Your task to perform on an android device: Open the calendar and show me this week's events? Image 0: 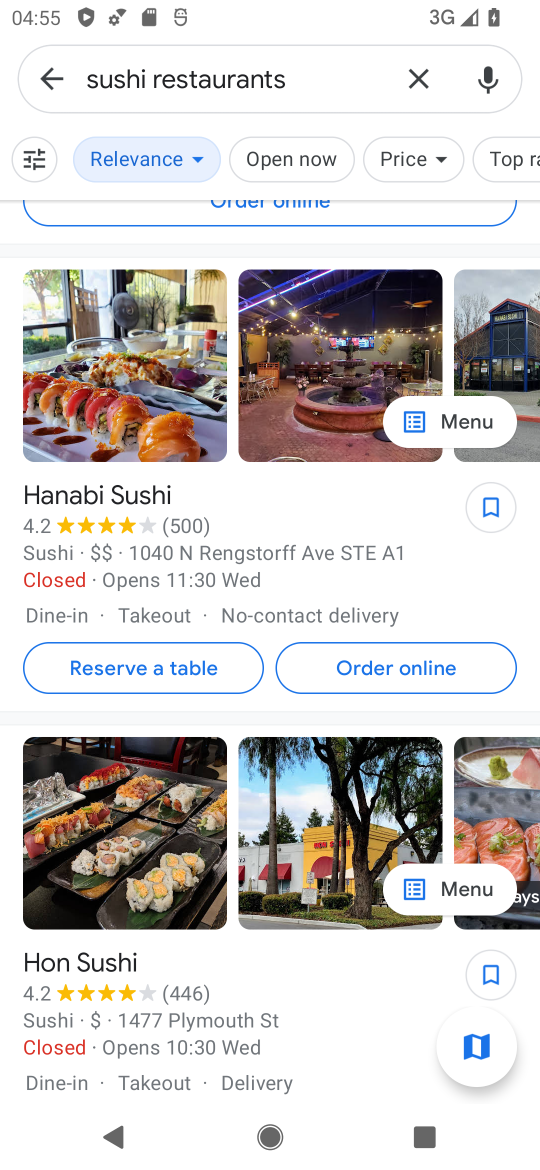
Step 0: press home button
Your task to perform on an android device: Open the calendar and show me this week's events? Image 1: 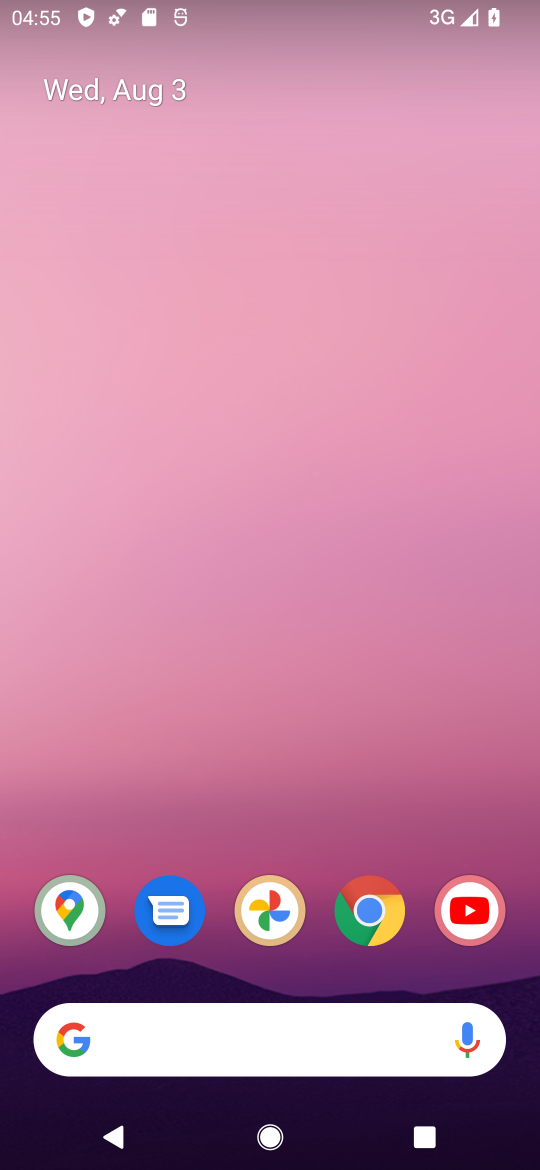
Step 1: drag from (311, 823) to (333, 13)
Your task to perform on an android device: Open the calendar and show me this week's events? Image 2: 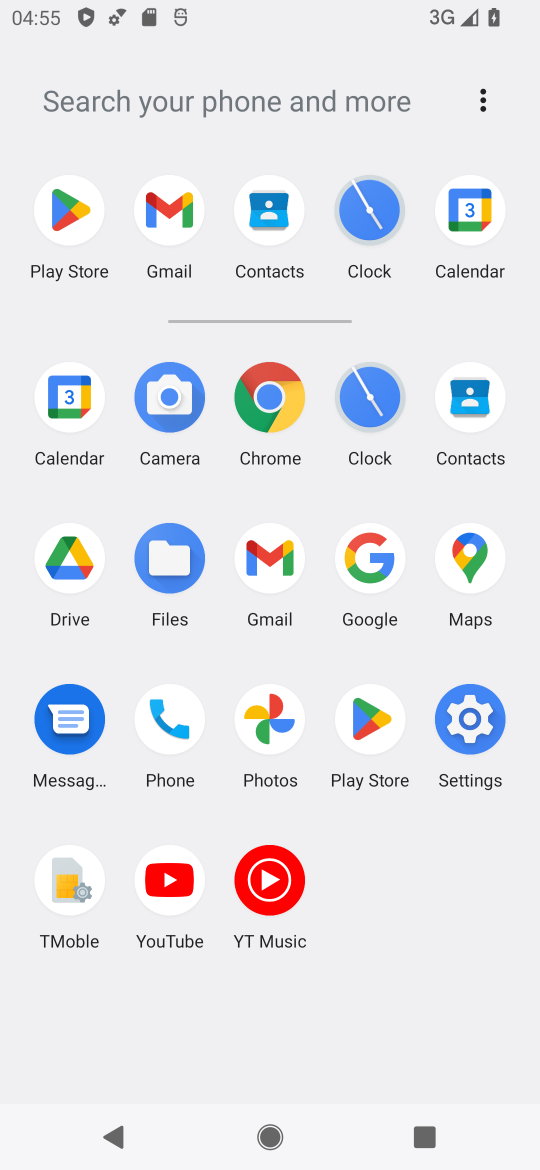
Step 2: click (469, 199)
Your task to perform on an android device: Open the calendar and show me this week's events? Image 3: 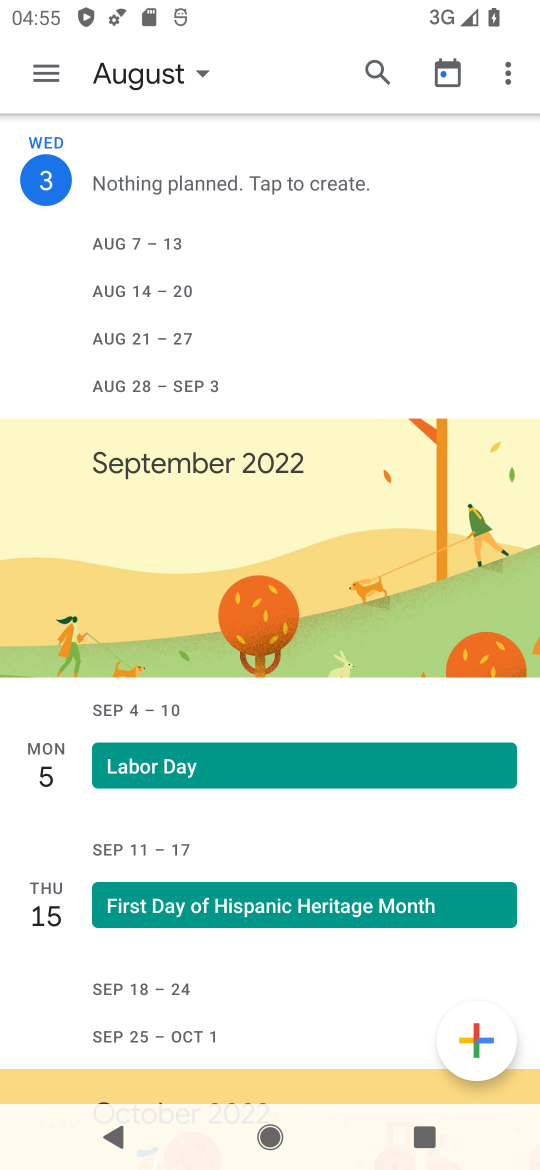
Step 3: click (47, 77)
Your task to perform on an android device: Open the calendar and show me this week's events? Image 4: 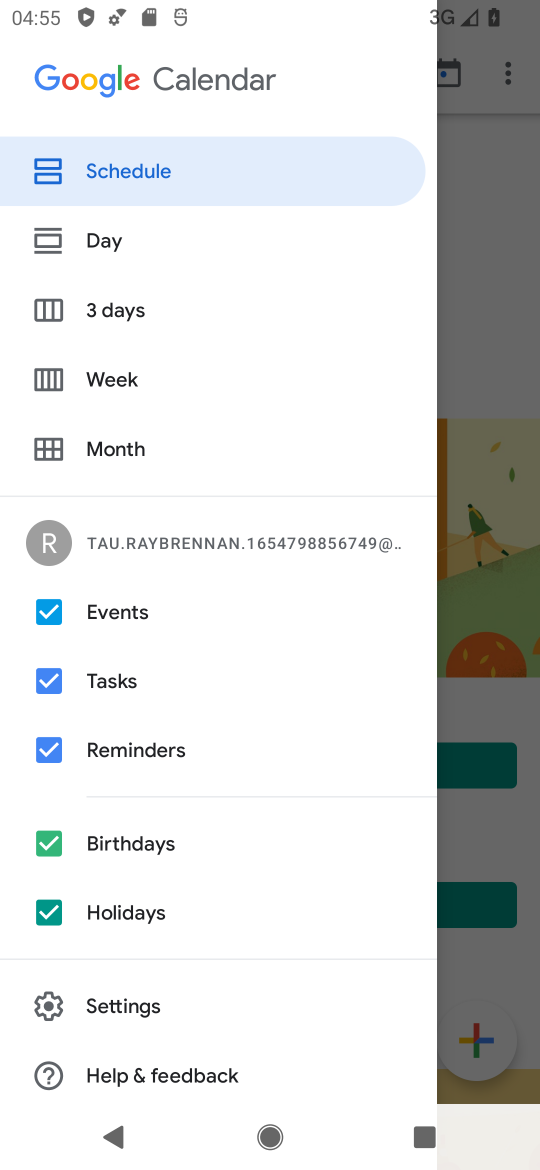
Step 4: click (48, 739)
Your task to perform on an android device: Open the calendar and show me this week's events? Image 5: 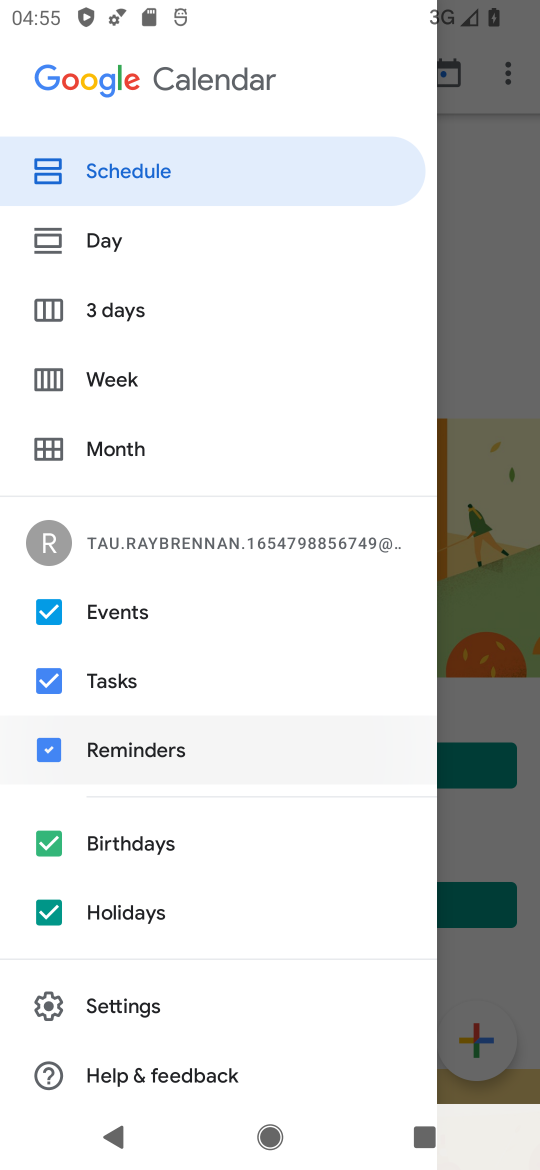
Step 5: click (48, 679)
Your task to perform on an android device: Open the calendar and show me this week's events? Image 6: 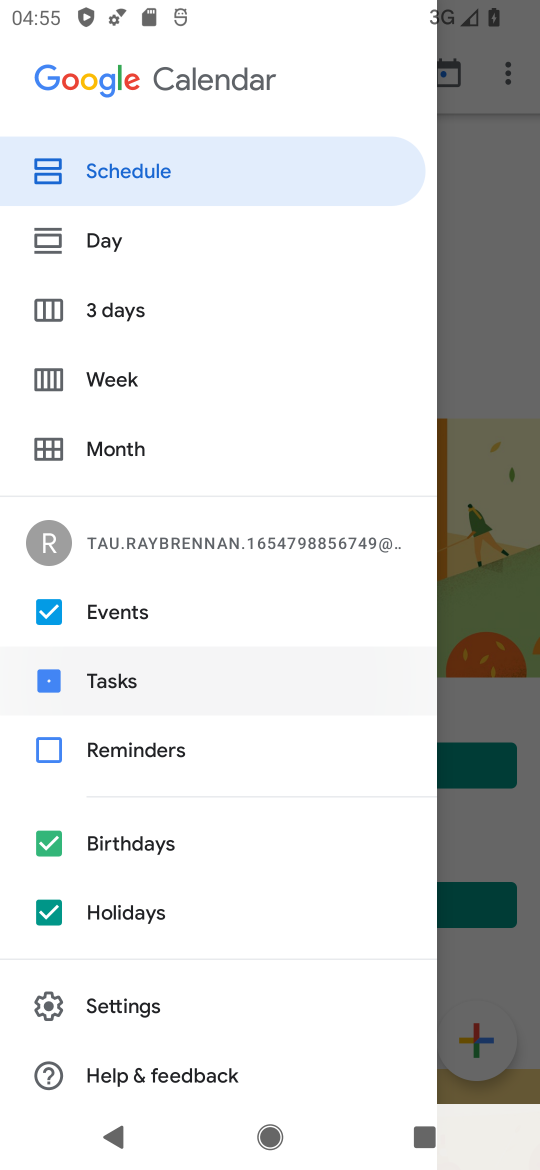
Step 6: click (38, 899)
Your task to perform on an android device: Open the calendar and show me this week's events? Image 7: 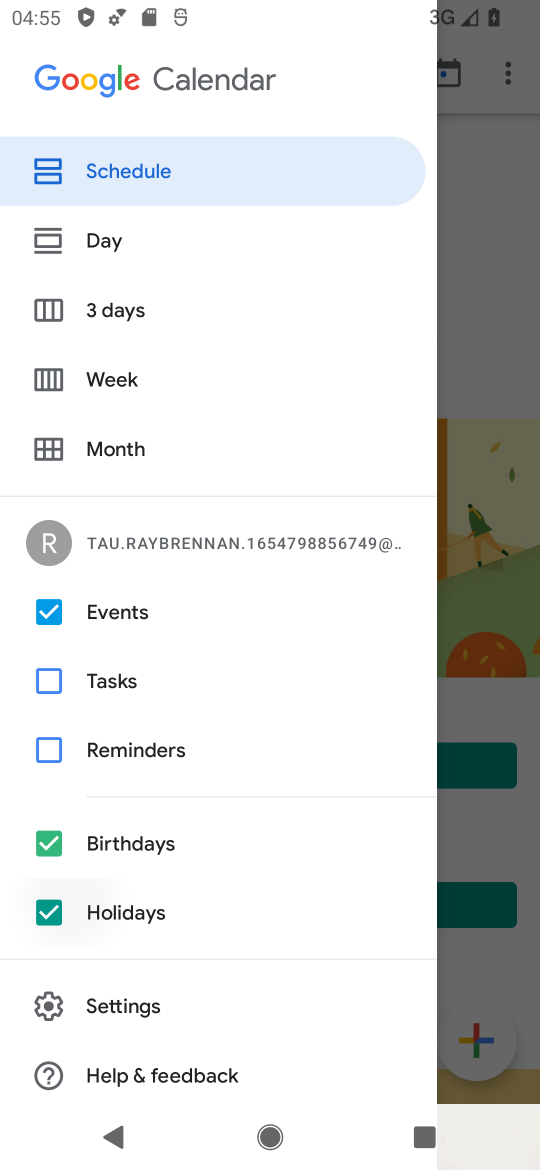
Step 7: click (52, 843)
Your task to perform on an android device: Open the calendar and show me this week's events? Image 8: 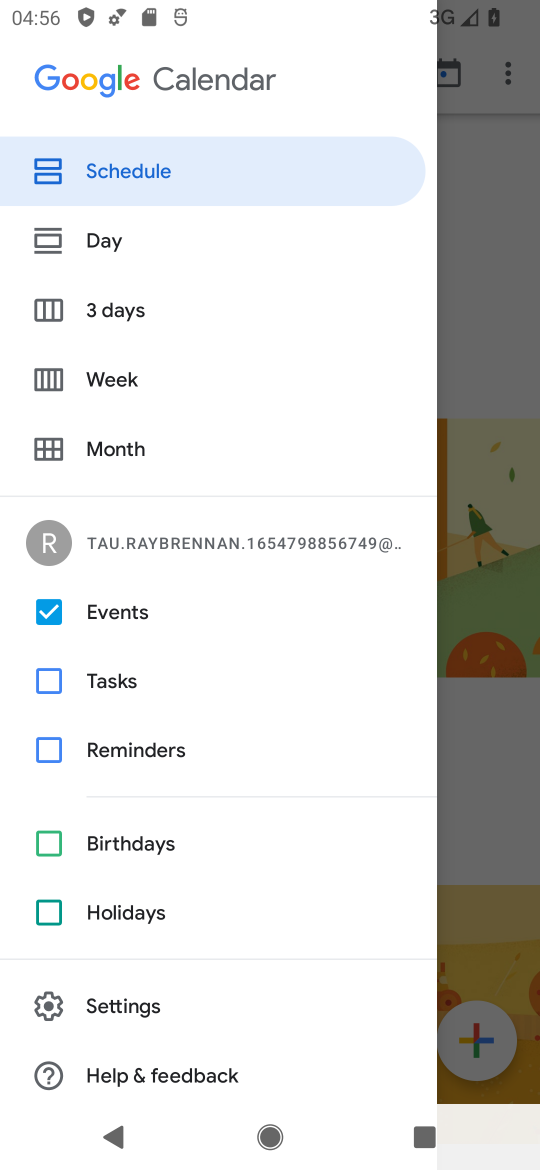
Step 8: click (83, 380)
Your task to perform on an android device: Open the calendar and show me this week's events? Image 9: 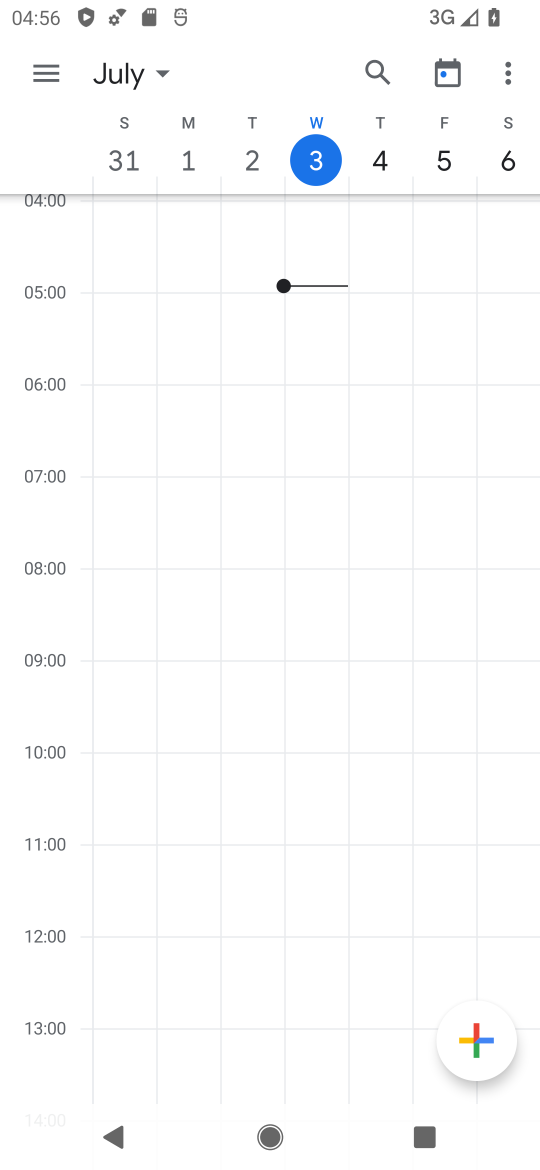
Step 9: task complete